Your task to perform on an android device: Search for sushi restaurants on Maps Image 0: 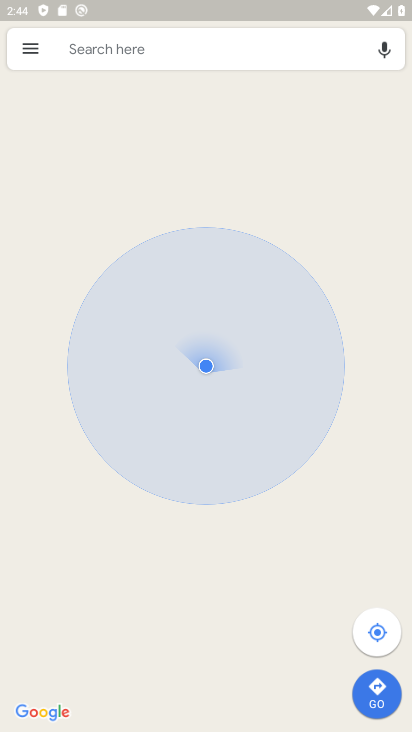
Step 0: press home button
Your task to perform on an android device: Search for sushi restaurants on Maps Image 1: 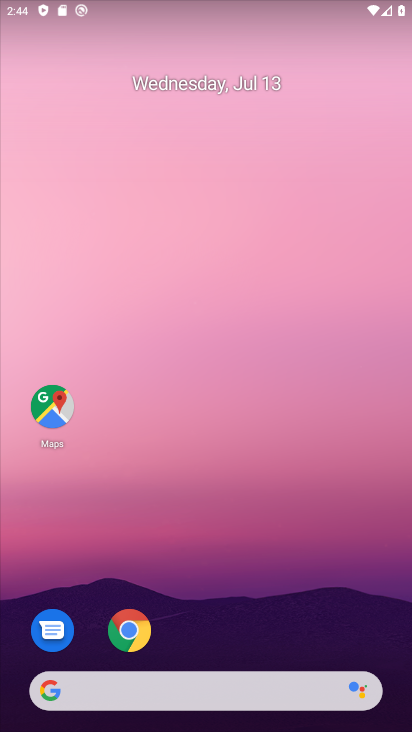
Step 1: click (53, 415)
Your task to perform on an android device: Search for sushi restaurants on Maps Image 2: 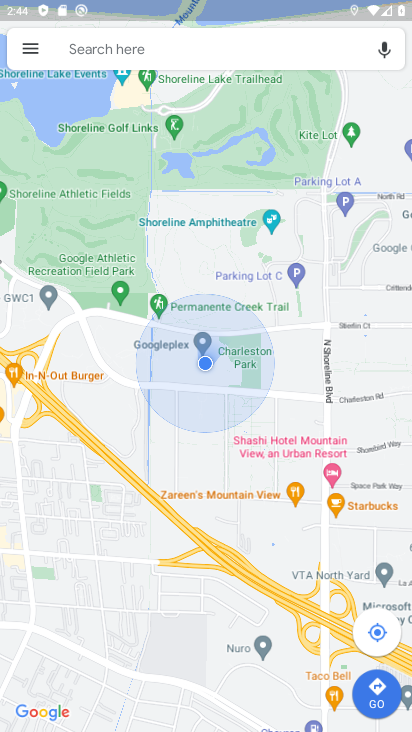
Step 2: click (106, 51)
Your task to perform on an android device: Search for sushi restaurants on Maps Image 3: 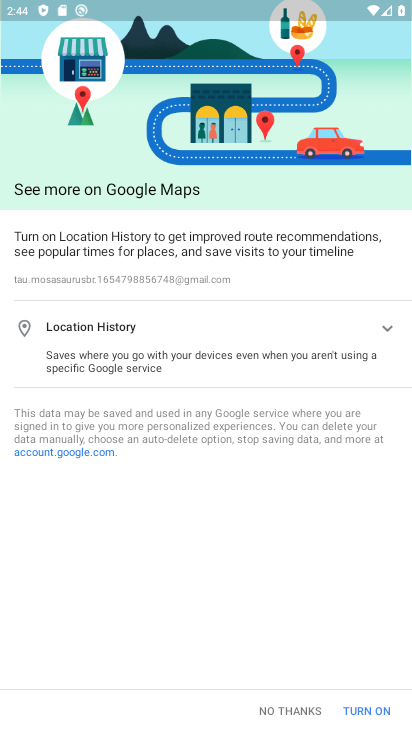
Step 3: click (291, 710)
Your task to perform on an android device: Search for sushi restaurants on Maps Image 4: 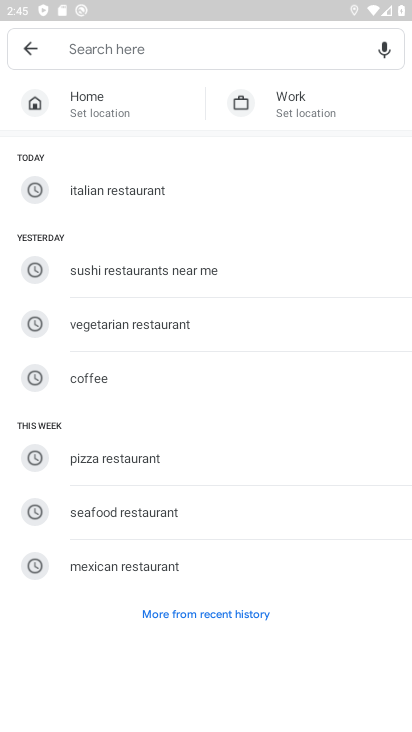
Step 4: click (97, 45)
Your task to perform on an android device: Search for sushi restaurants on Maps Image 5: 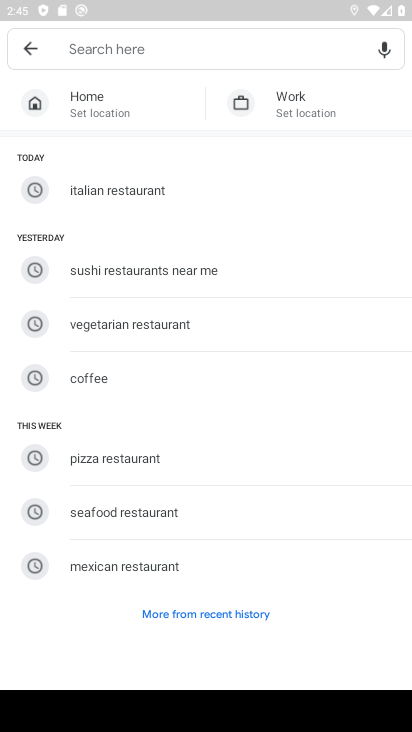
Step 5: type "sushi restaurants"
Your task to perform on an android device: Search for sushi restaurants on Maps Image 6: 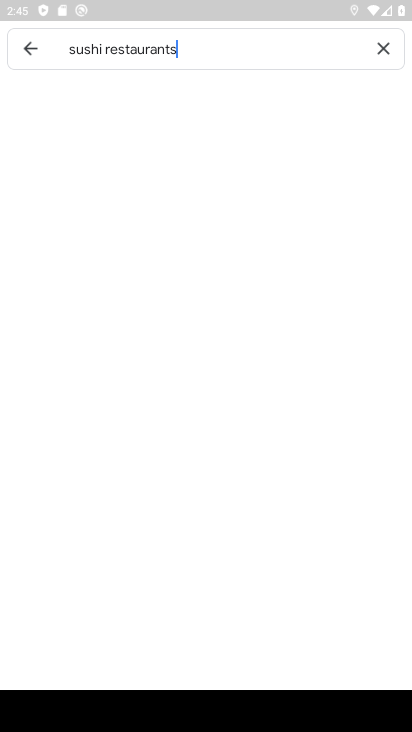
Step 6: type ""
Your task to perform on an android device: Search for sushi restaurants on Maps Image 7: 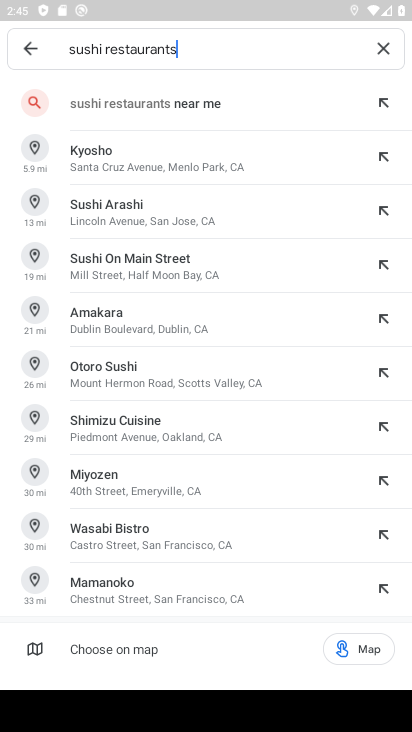
Step 7: type ""
Your task to perform on an android device: Search for sushi restaurants on Maps Image 8: 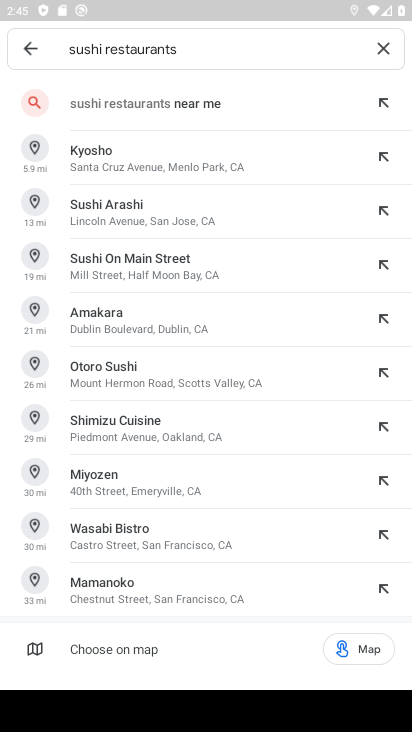
Step 8: task complete